Your task to perform on an android device: visit the assistant section in the google photos Image 0: 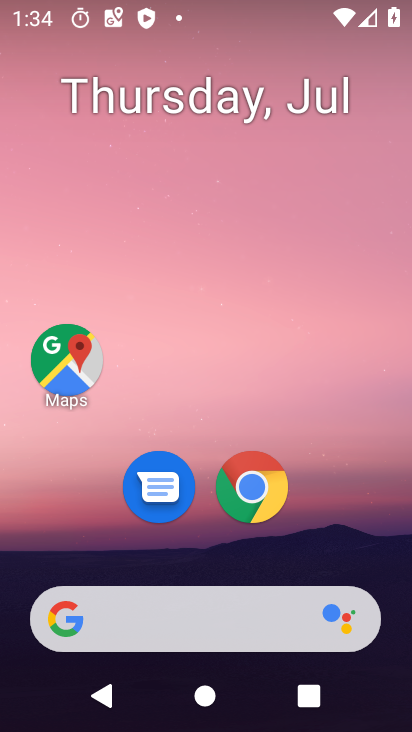
Step 0: drag from (187, 614) to (294, 150)
Your task to perform on an android device: visit the assistant section in the google photos Image 1: 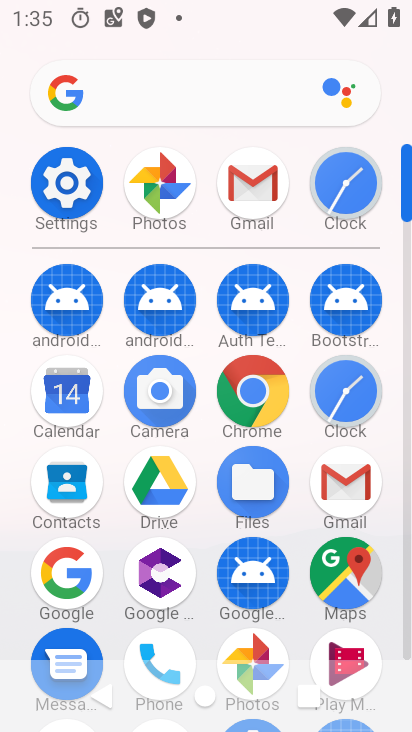
Step 1: drag from (238, 502) to (303, 225)
Your task to perform on an android device: visit the assistant section in the google photos Image 2: 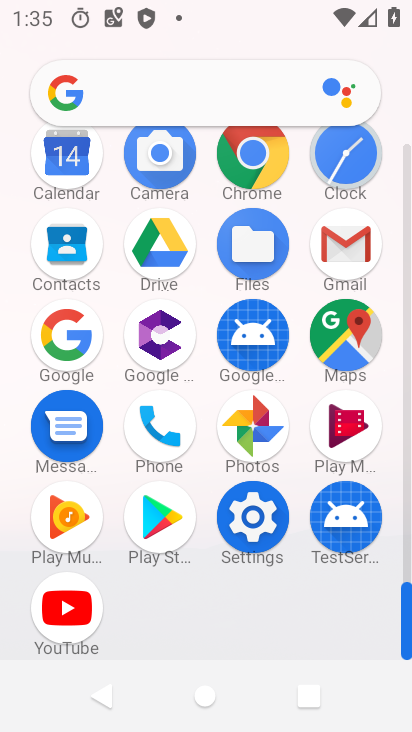
Step 2: click (256, 455)
Your task to perform on an android device: visit the assistant section in the google photos Image 3: 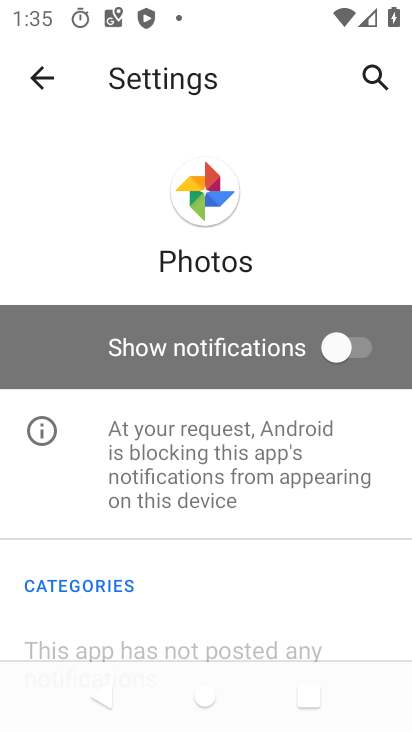
Step 3: click (43, 90)
Your task to perform on an android device: visit the assistant section in the google photos Image 4: 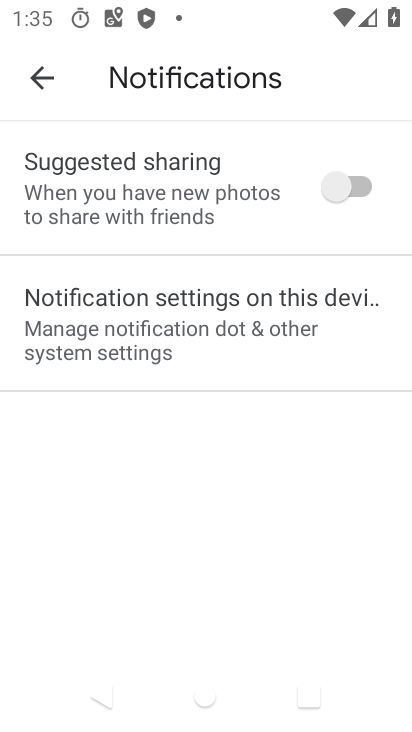
Step 4: click (44, 90)
Your task to perform on an android device: visit the assistant section in the google photos Image 5: 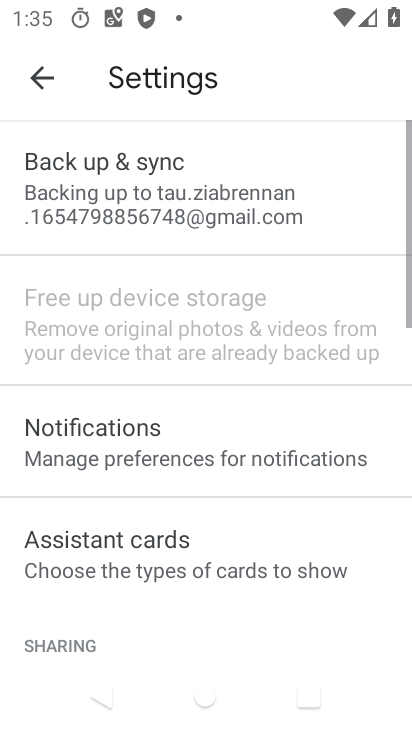
Step 5: click (44, 90)
Your task to perform on an android device: visit the assistant section in the google photos Image 6: 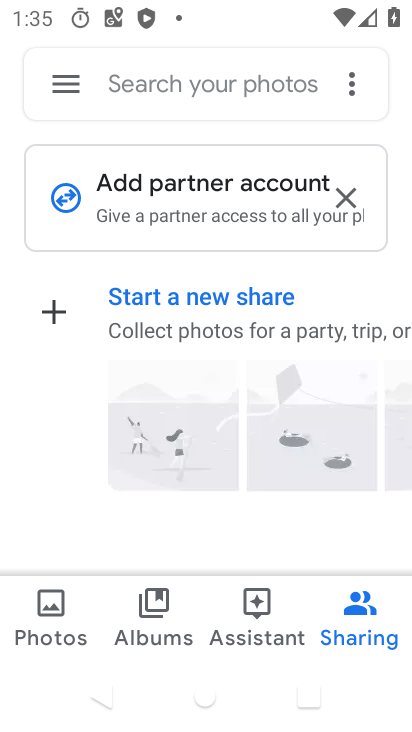
Step 6: click (253, 608)
Your task to perform on an android device: visit the assistant section in the google photos Image 7: 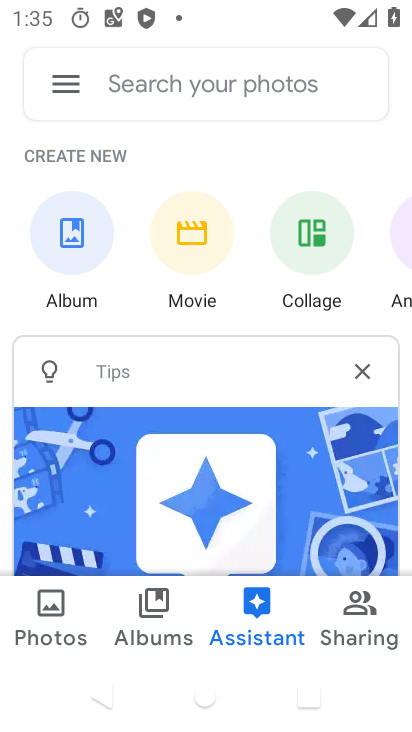
Step 7: task complete